Your task to perform on an android device: Open settings on Google Maps Image 0: 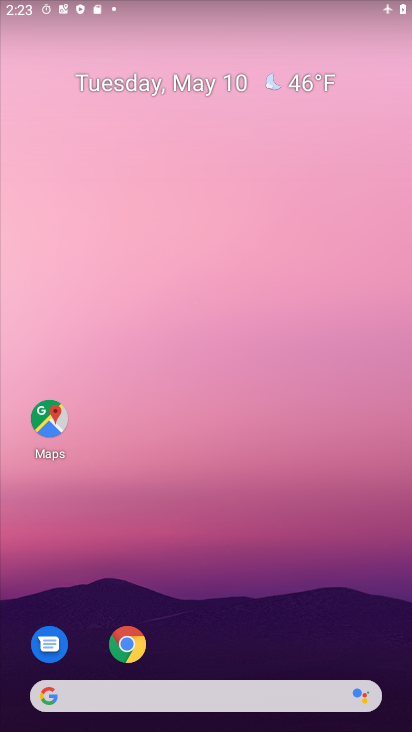
Step 0: drag from (245, 588) to (226, 397)
Your task to perform on an android device: Open settings on Google Maps Image 1: 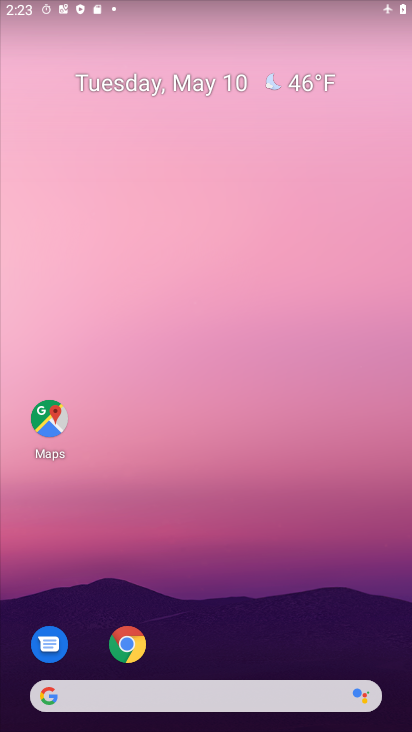
Step 1: drag from (213, 632) to (193, 147)
Your task to perform on an android device: Open settings on Google Maps Image 2: 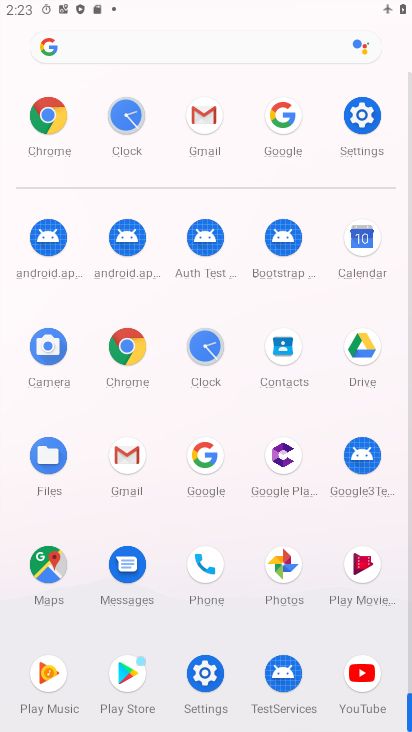
Step 2: click (45, 578)
Your task to perform on an android device: Open settings on Google Maps Image 3: 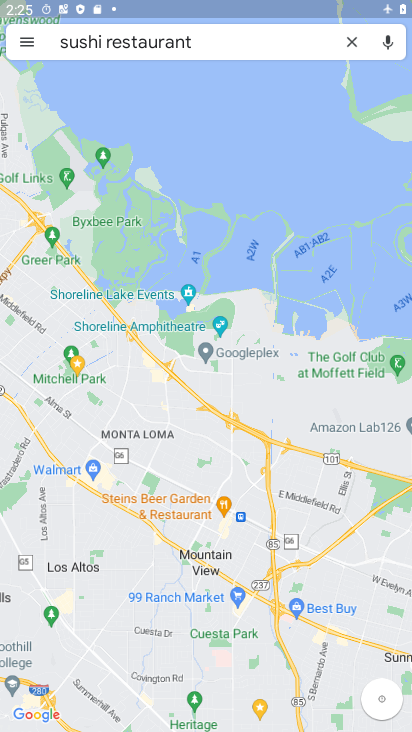
Step 3: click (355, 44)
Your task to perform on an android device: Open settings on Google Maps Image 4: 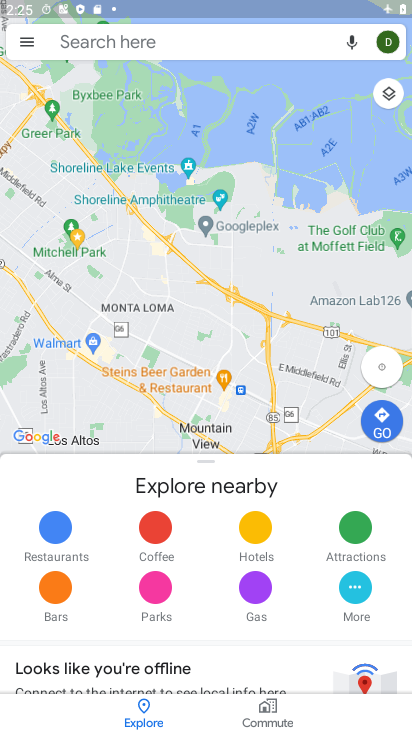
Step 4: click (157, 46)
Your task to perform on an android device: Open settings on Google Maps Image 5: 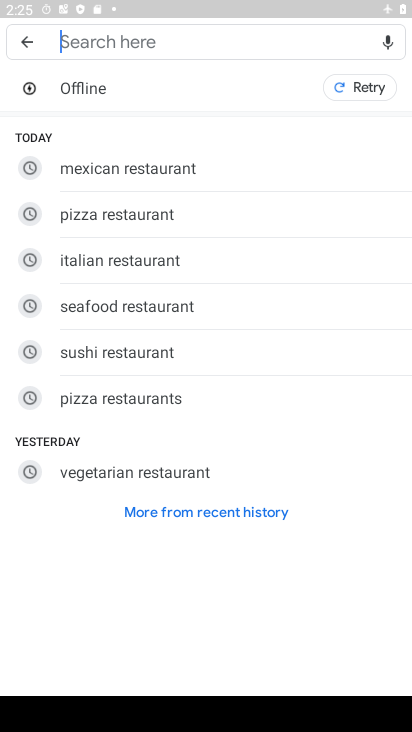
Step 5: press back button
Your task to perform on an android device: Open settings on Google Maps Image 6: 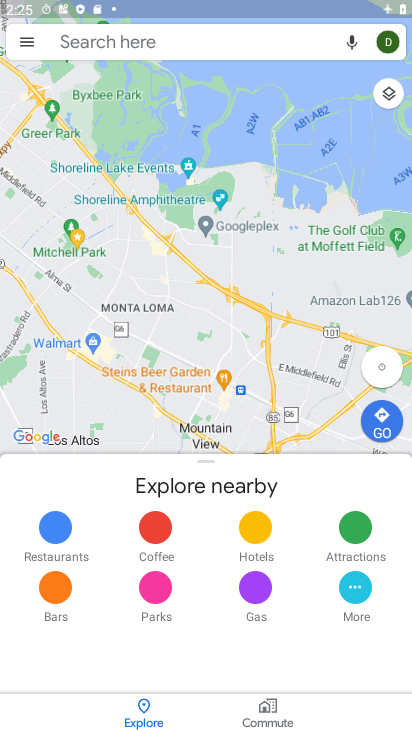
Step 6: click (18, 32)
Your task to perform on an android device: Open settings on Google Maps Image 7: 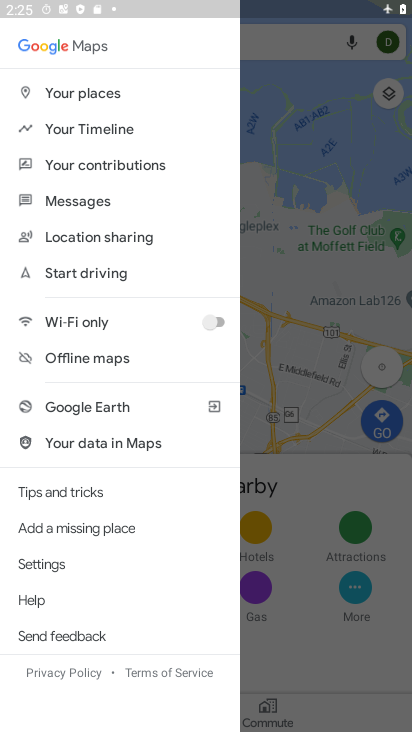
Step 7: click (68, 559)
Your task to perform on an android device: Open settings on Google Maps Image 8: 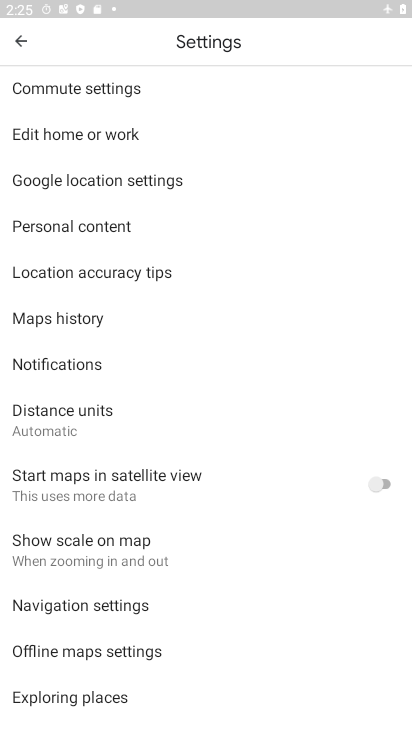
Step 8: task complete